Your task to perform on an android device: toggle wifi Image 0: 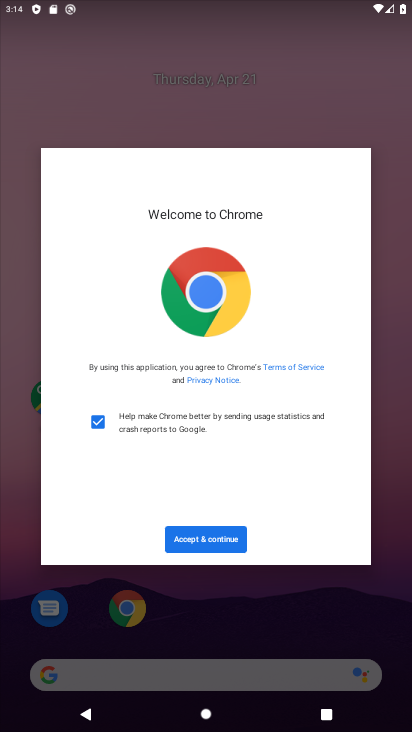
Step 0: press back button
Your task to perform on an android device: toggle wifi Image 1: 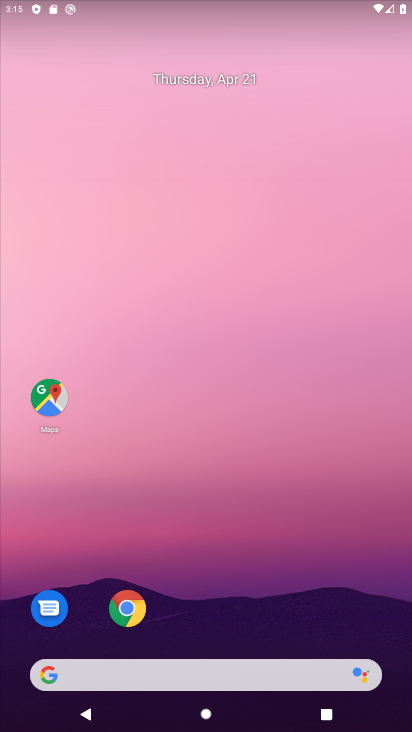
Step 1: click (296, 109)
Your task to perform on an android device: toggle wifi Image 2: 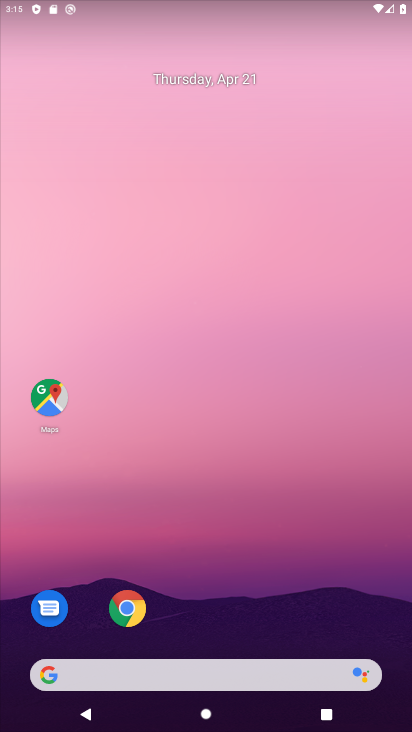
Step 2: drag from (175, 652) to (233, 162)
Your task to perform on an android device: toggle wifi Image 3: 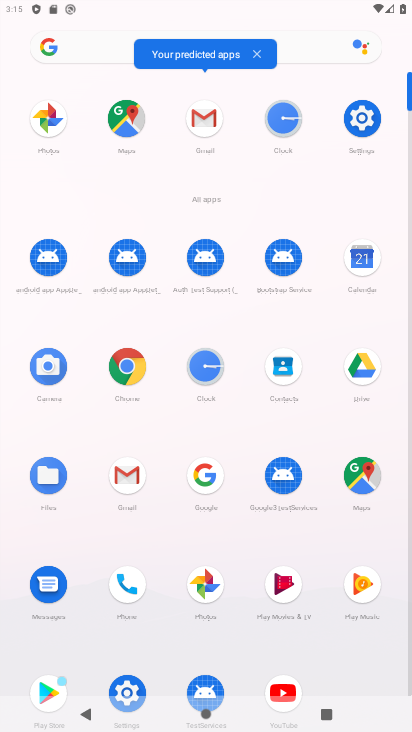
Step 3: click (126, 679)
Your task to perform on an android device: toggle wifi Image 4: 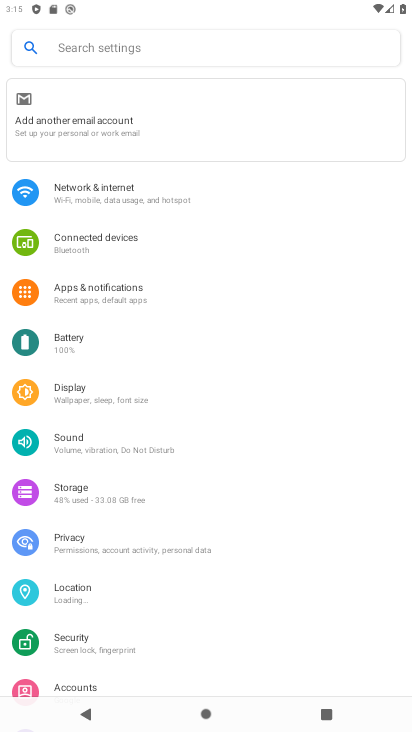
Step 4: click (164, 195)
Your task to perform on an android device: toggle wifi Image 5: 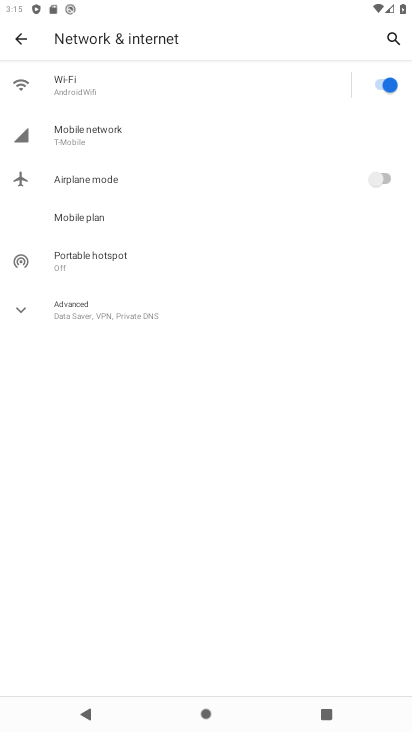
Step 5: click (384, 85)
Your task to perform on an android device: toggle wifi Image 6: 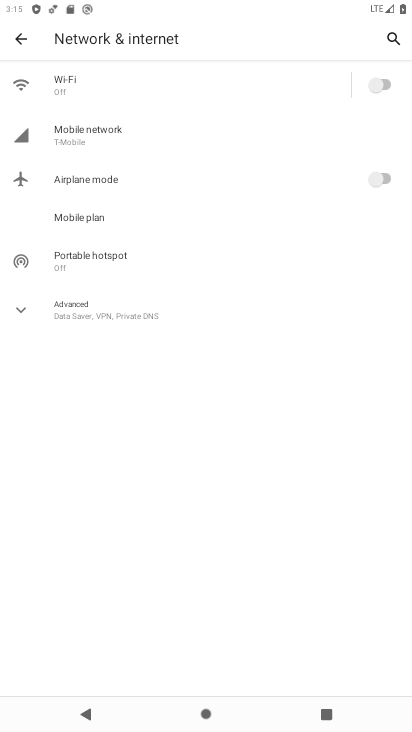
Step 6: task complete